Your task to perform on an android device: search for starred emails in the gmail app Image 0: 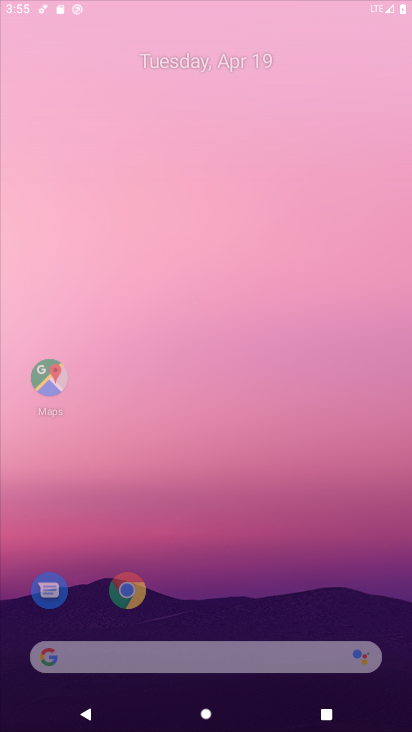
Step 0: drag from (231, 581) to (225, 1)
Your task to perform on an android device: search for starred emails in the gmail app Image 1: 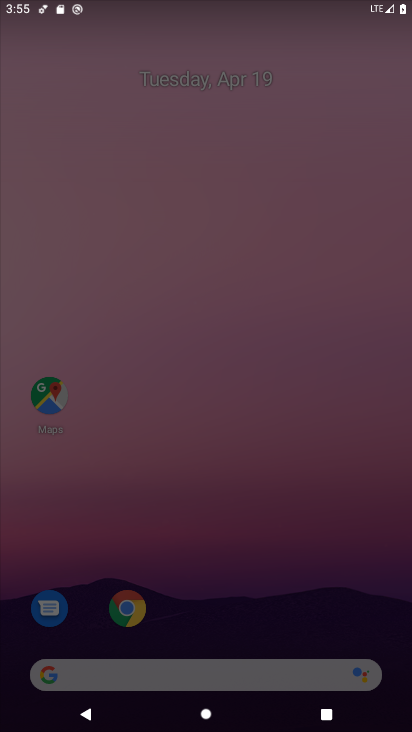
Step 1: press home button
Your task to perform on an android device: search for starred emails in the gmail app Image 2: 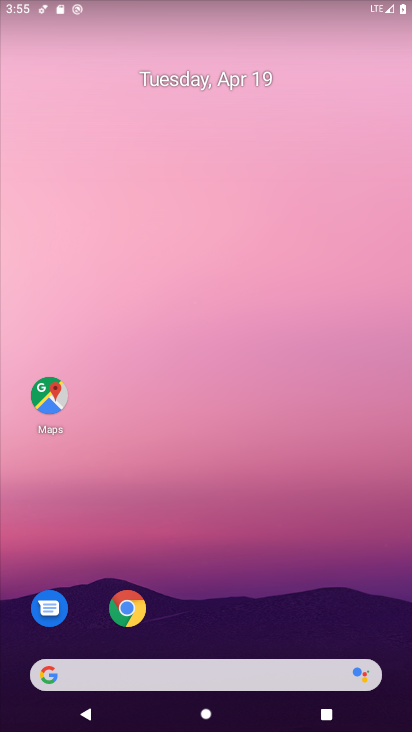
Step 2: drag from (267, 576) to (217, 84)
Your task to perform on an android device: search for starred emails in the gmail app Image 3: 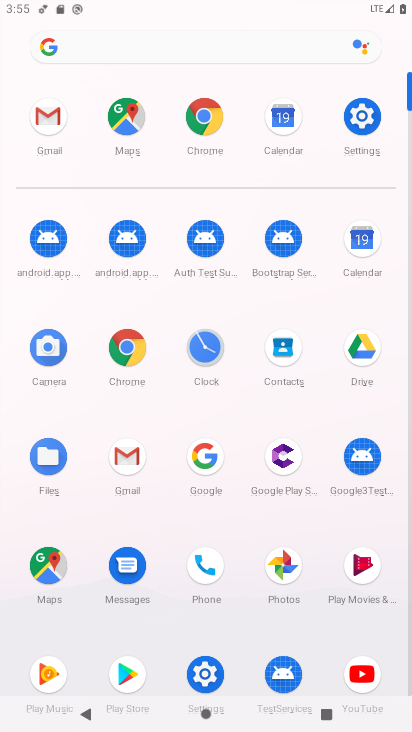
Step 3: click (126, 448)
Your task to perform on an android device: search for starred emails in the gmail app Image 4: 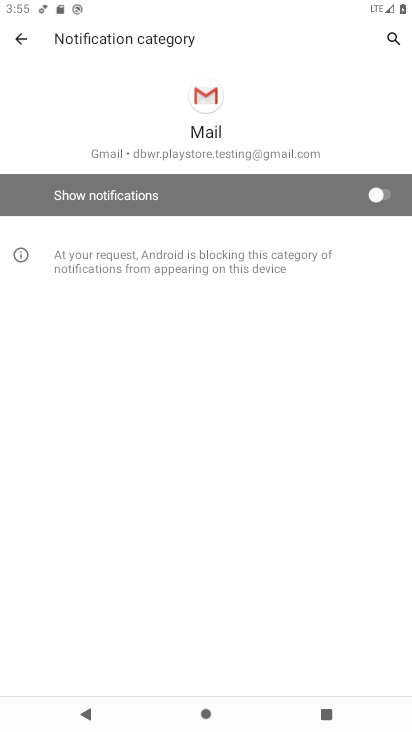
Step 4: click (20, 39)
Your task to perform on an android device: search for starred emails in the gmail app Image 5: 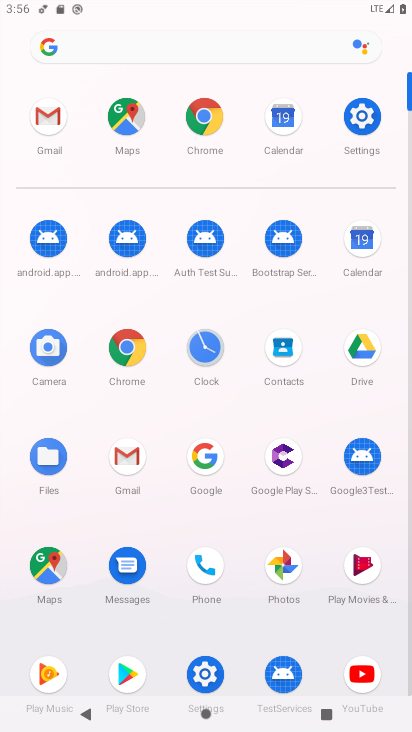
Step 5: click (120, 456)
Your task to perform on an android device: search for starred emails in the gmail app Image 6: 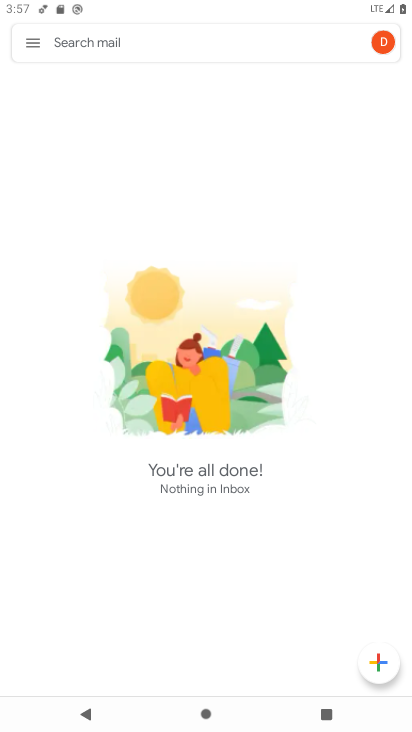
Step 6: click (39, 40)
Your task to perform on an android device: search for starred emails in the gmail app Image 7: 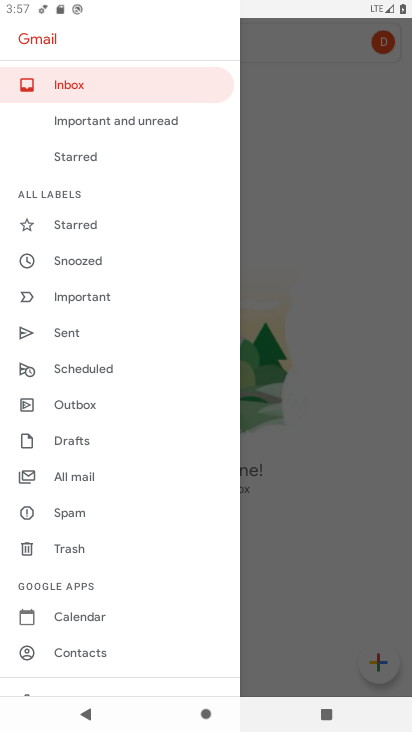
Step 7: click (51, 157)
Your task to perform on an android device: search for starred emails in the gmail app Image 8: 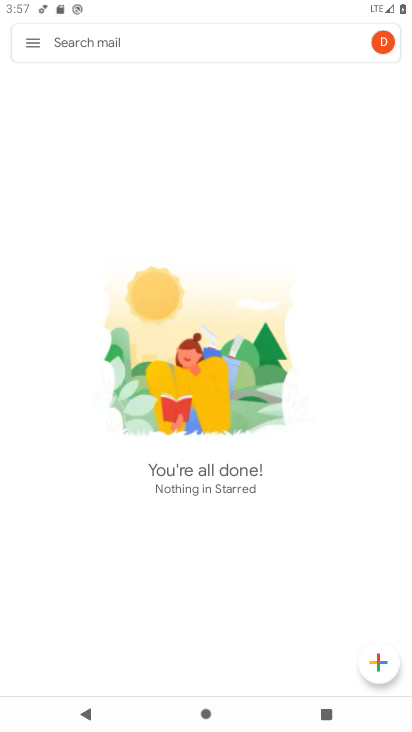
Step 8: task complete